Your task to perform on an android device: check android version Image 0: 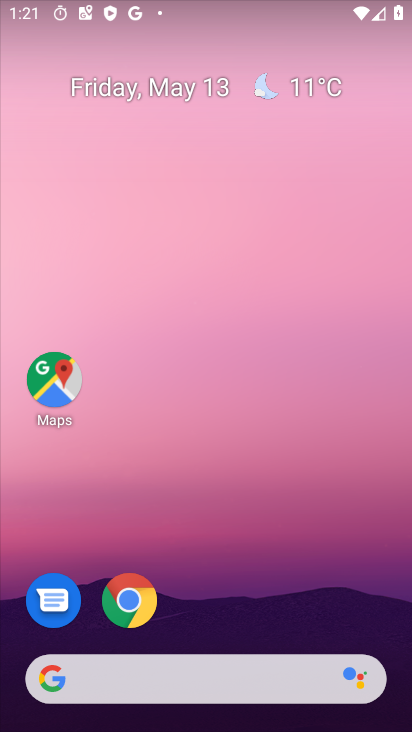
Step 0: drag from (270, 590) to (402, 143)
Your task to perform on an android device: check android version Image 1: 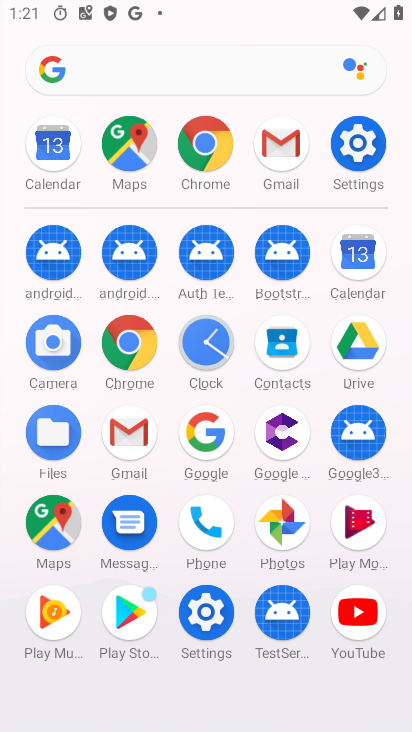
Step 1: click (230, 606)
Your task to perform on an android device: check android version Image 2: 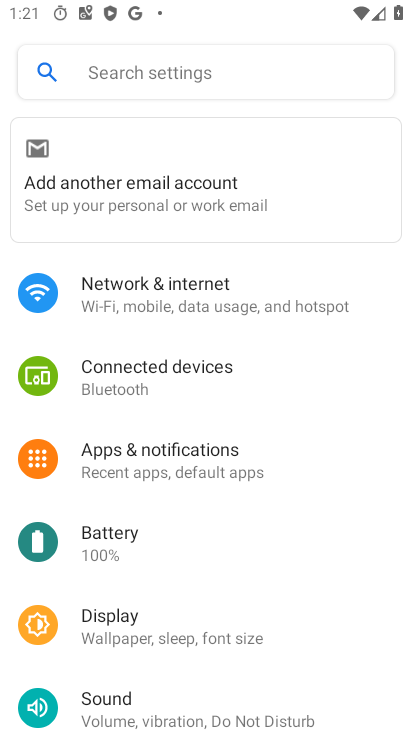
Step 2: drag from (192, 664) to (337, 173)
Your task to perform on an android device: check android version Image 3: 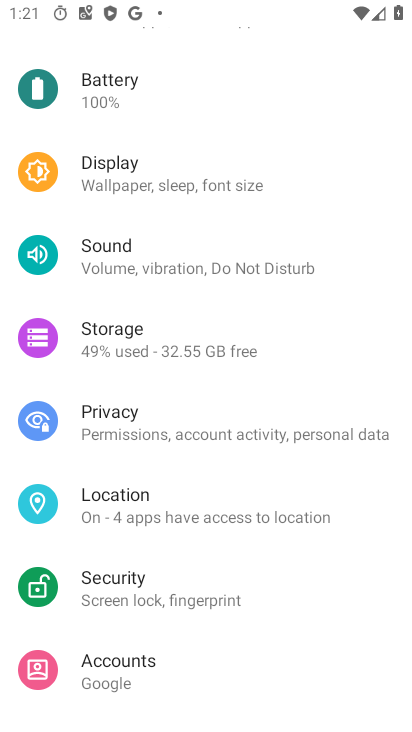
Step 3: drag from (235, 588) to (285, 330)
Your task to perform on an android device: check android version Image 4: 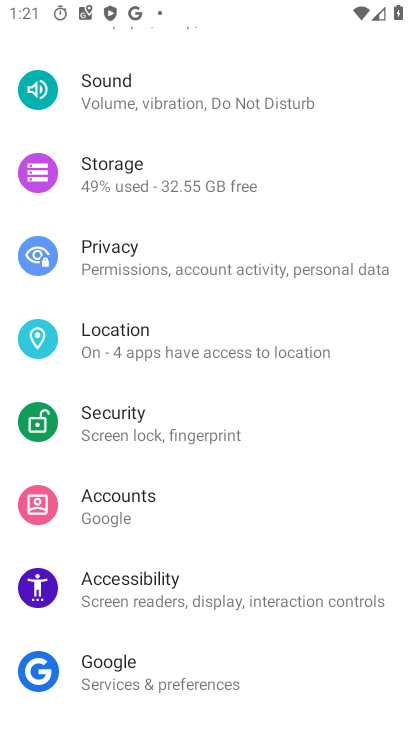
Step 4: click (383, 40)
Your task to perform on an android device: check android version Image 5: 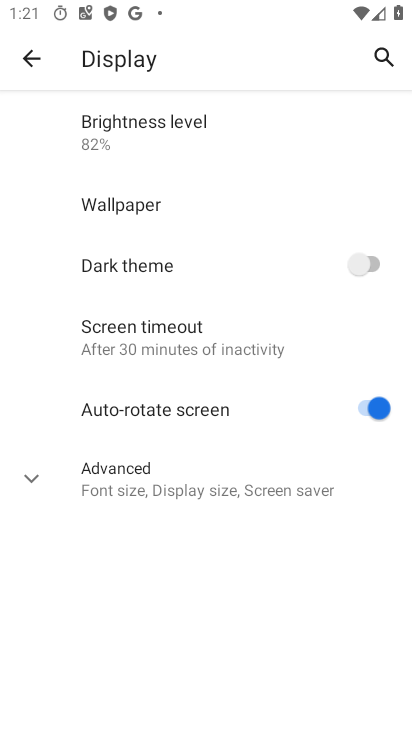
Step 5: click (32, 62)
Your task to perform on an android device: check android version Image 6: 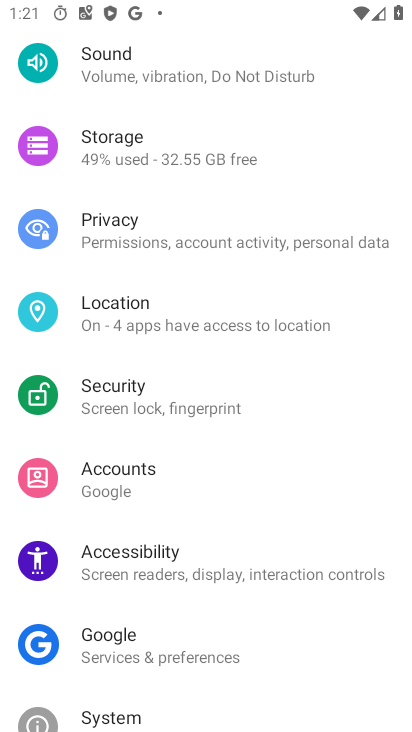
Step 6: drag from (228, 555) to (346, 3)
Your task to perform on an android device: check android version Image 7: 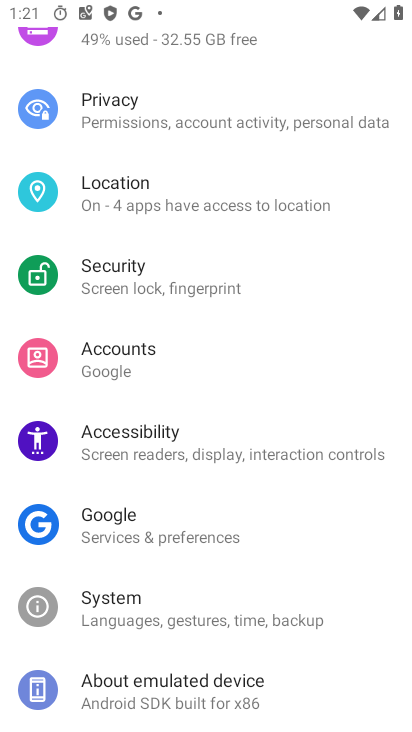
Step 7: click (162, 674)
Your task to perform on an android device: check android version Image 8: 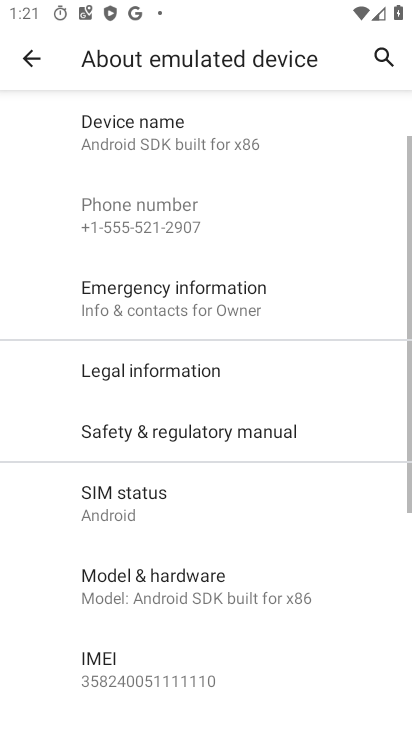
Step 8: drag from (196, 640) to (311, 99)
Your task to perform on an android device: check android version Image 9: 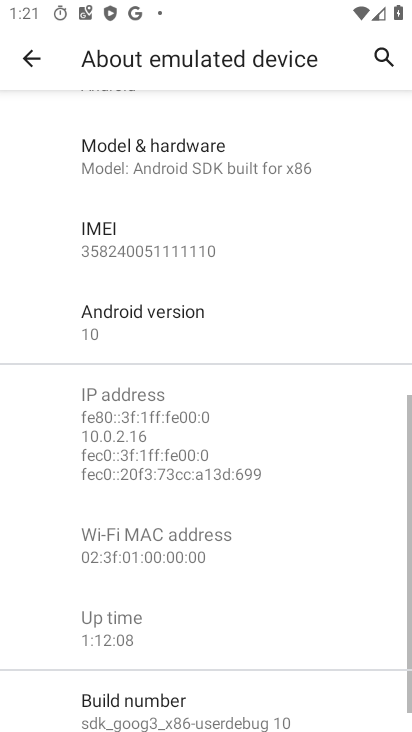
Step 9: click (162, 322)
Your task to perform on an android device: check android version Image 10: 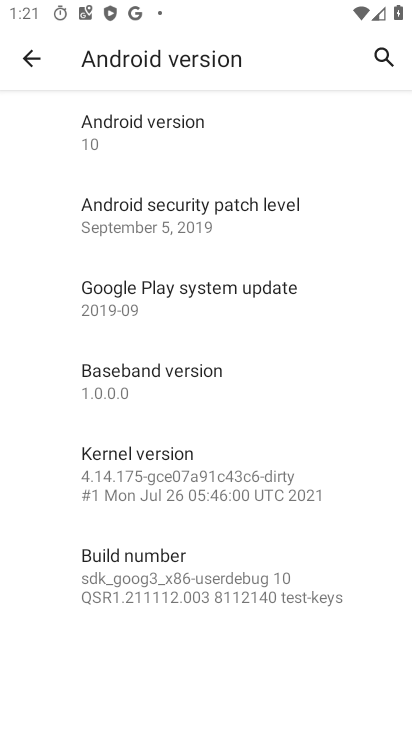
Step 10: task complete